Your task to perform on an android device: open device folders in google photos Image 0: 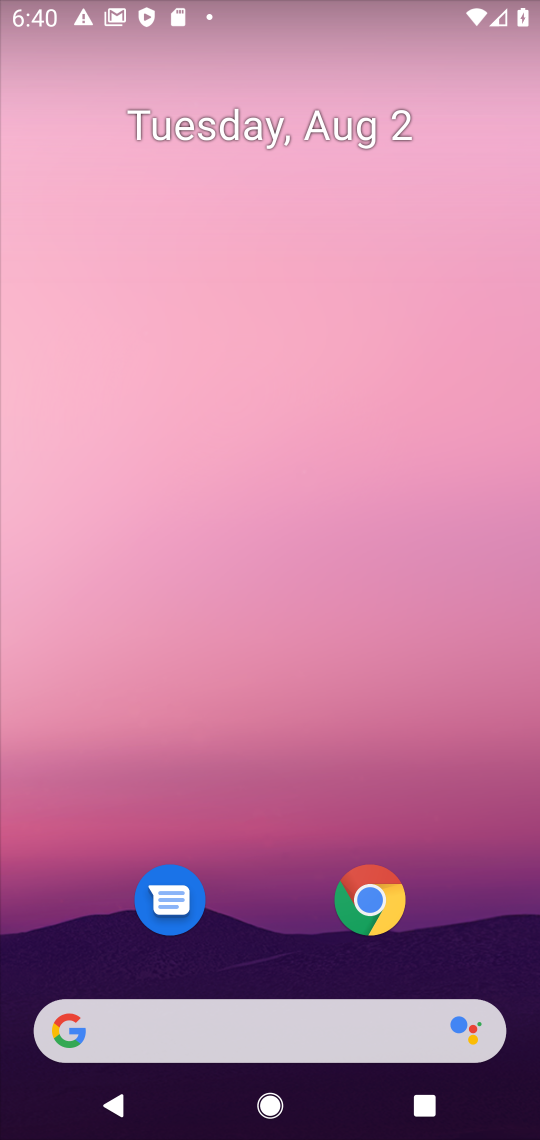
Step 0: drag from (236, 791) to (160, 23)
Your task to perform on an android device: open device folders in google photos Image 1: 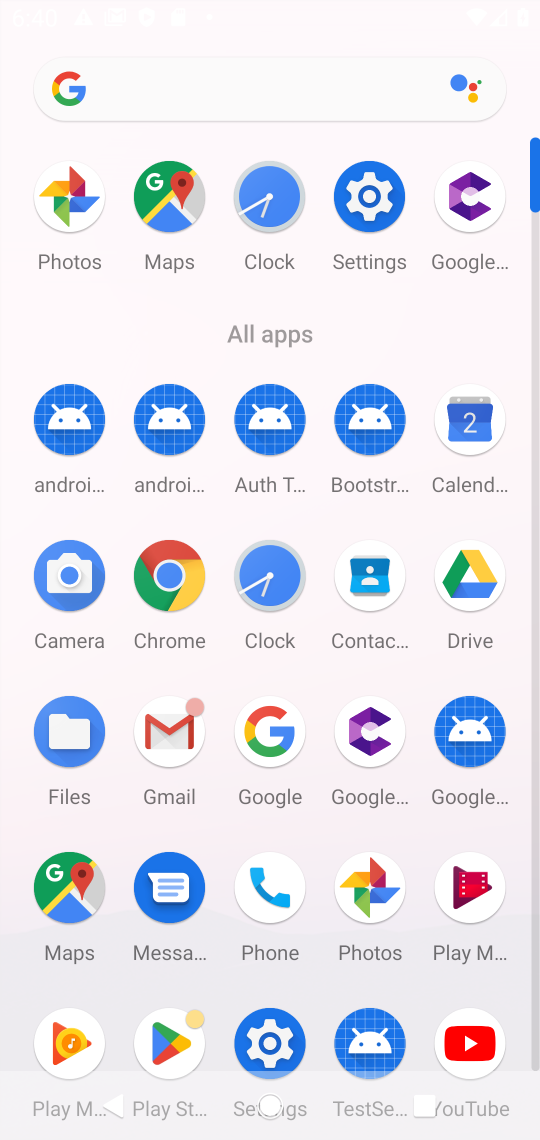
Step 1: click (67, 199)
Your task to perform on an android device: open device folders in google photos Image 2: 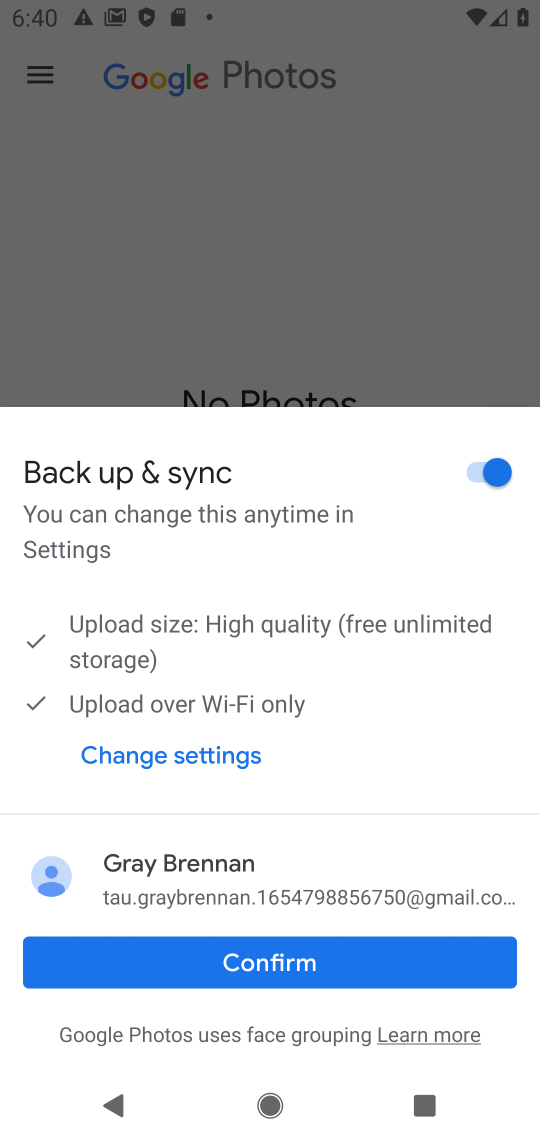
Step 2: click (286, 955)
Your task to perform on an android device: open device folders in google photos Image 3: 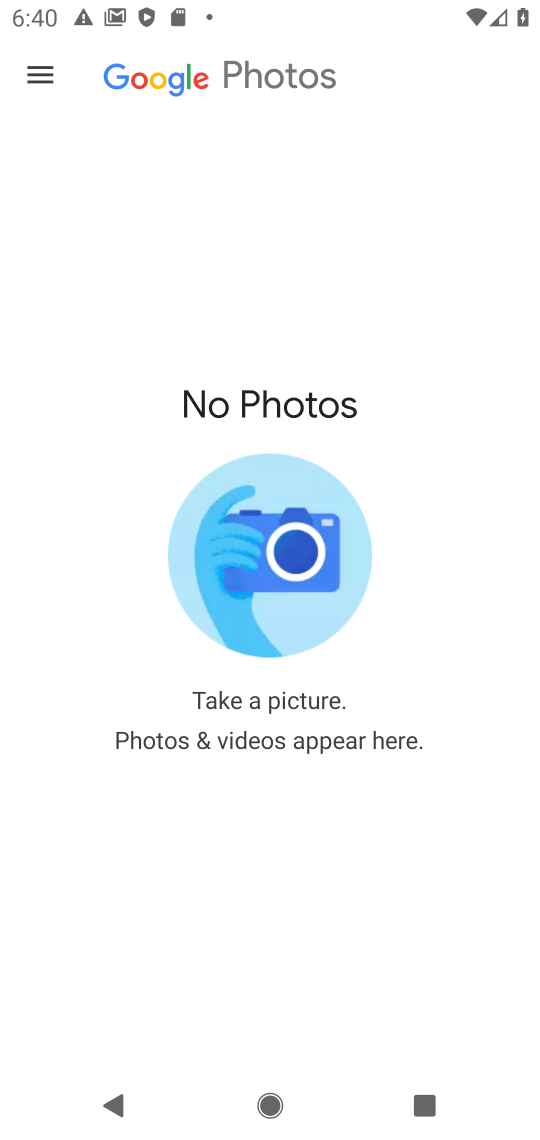
Step 3: click (37, 67)
Your task to perform on an android device: open device folders in google photos Image 4: 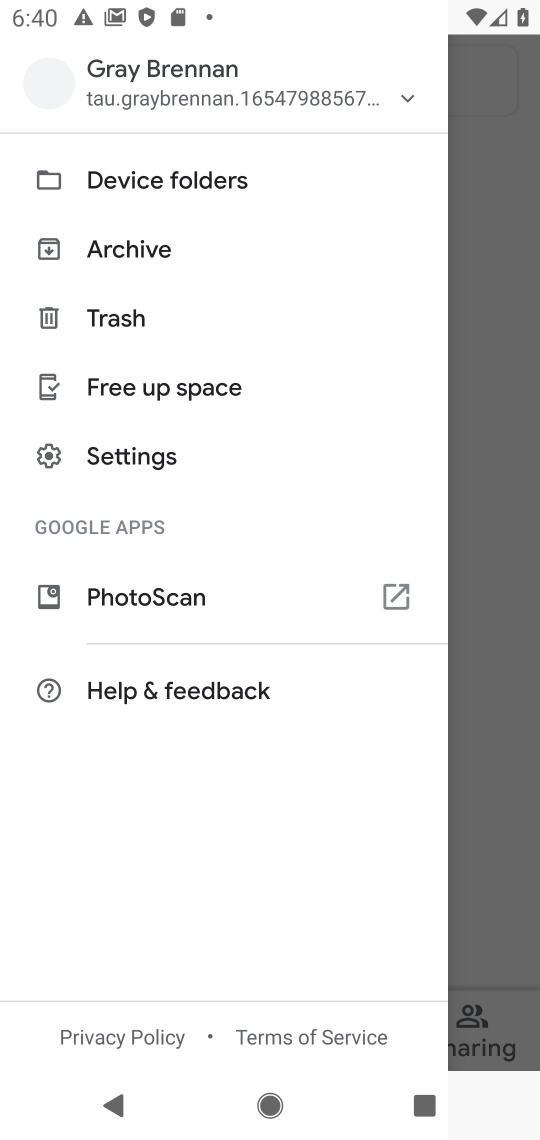
Step 4: click (160, 170)
Your task to perform on an android device: open device folders in google photos Image 5: 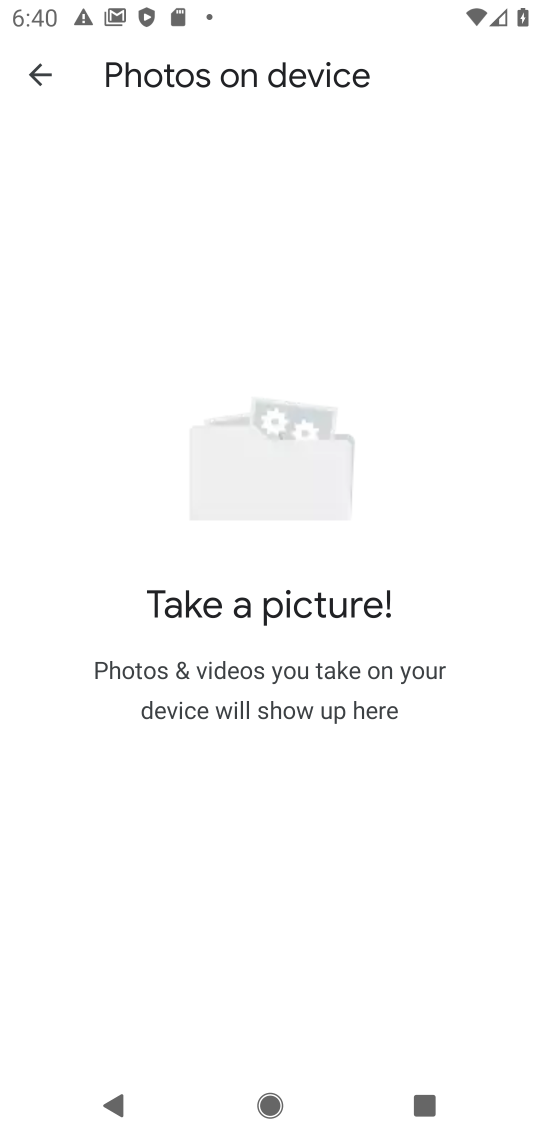
Step 5: task complete